Your task to perform on an android device: toggle airplane mode Image 0: 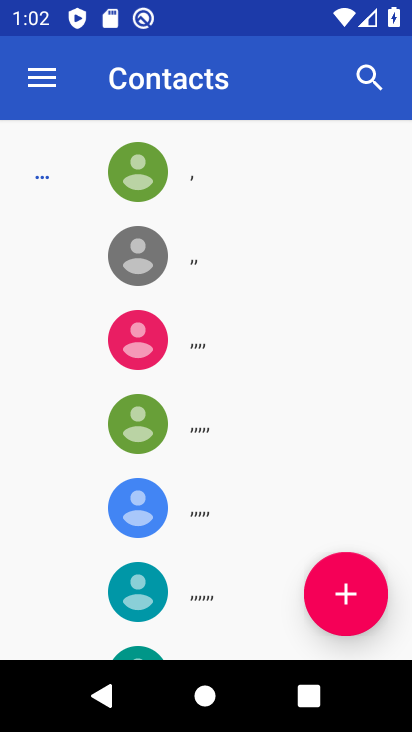
Step 0: press home button
Your task to perform on an android device: toggle airplane mode Image 1: 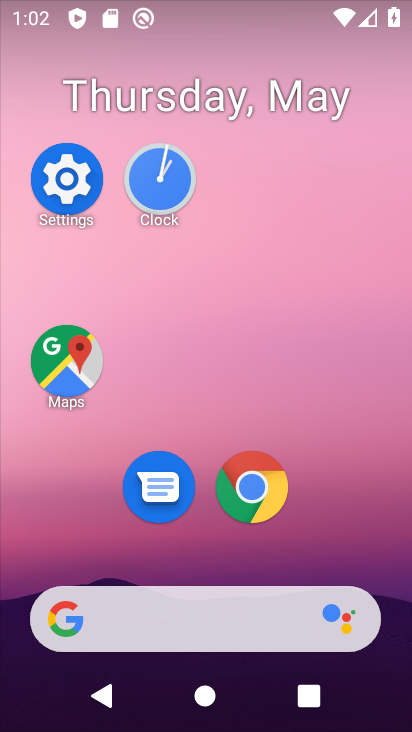
Step 1: click (91, 187)
Your task to perform on an android device: toggle airplane mode Image 2: 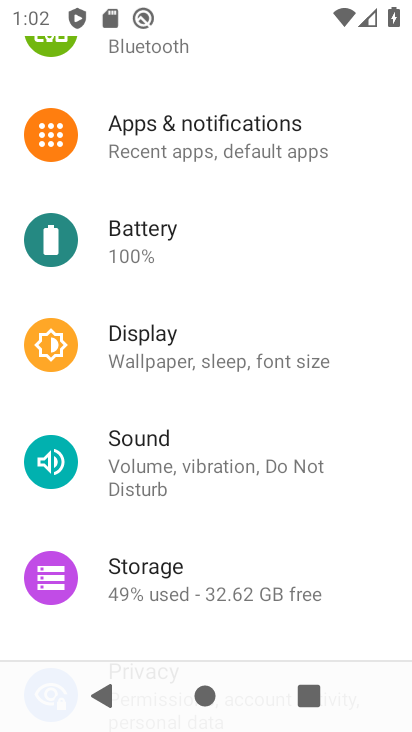
Step 2: drag from (328, 160) to (305, 505)
Your task to perform on an android device: toggle airplane mode Image 3: 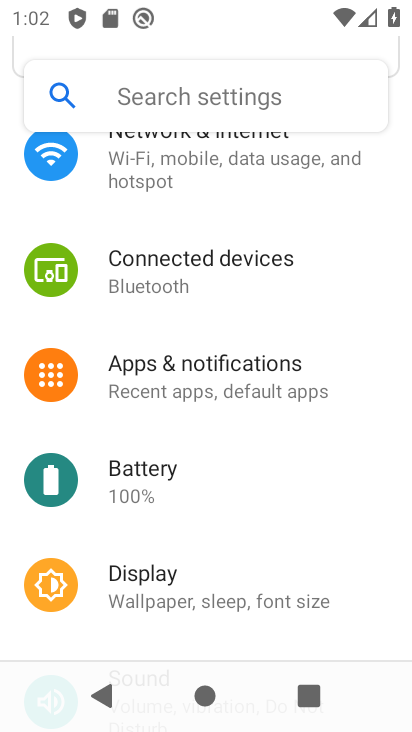
Step 3: click (248, 137)
Your task to perform on an android device: toggle airplane mode Image 4: 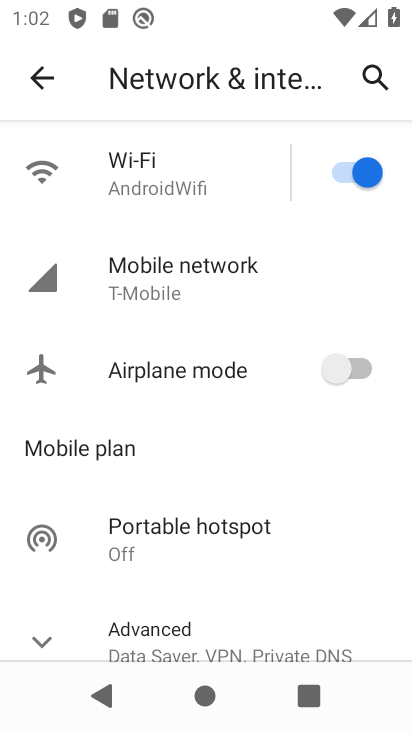
Step 4: click (344, 363)
Your task to perform on an android device: toggle airplane mode Image 5: 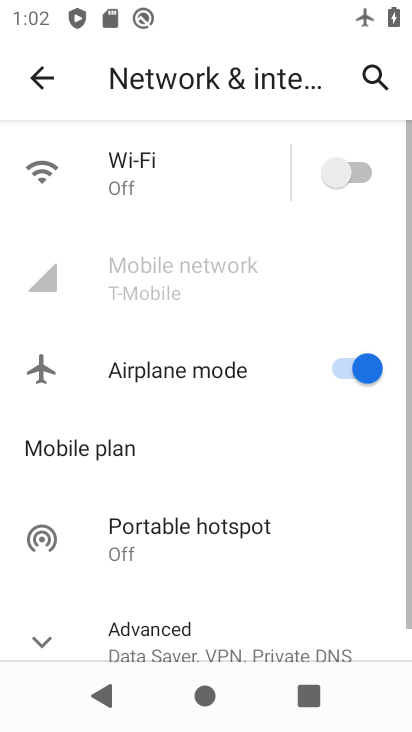
Step 5: task complete